Your task to perform on an android device: Look up the best rated book on Goodreads Image 0: 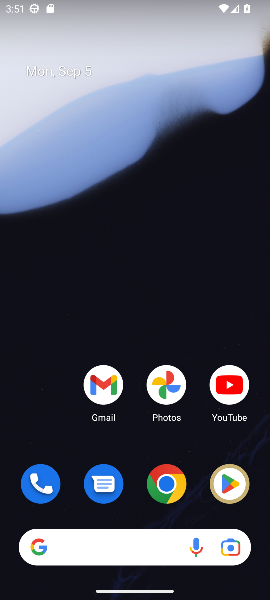
Step 0: click (169, 481)
Your task to perform on an android device: Look up the best rated book on Goodreads Image 1: 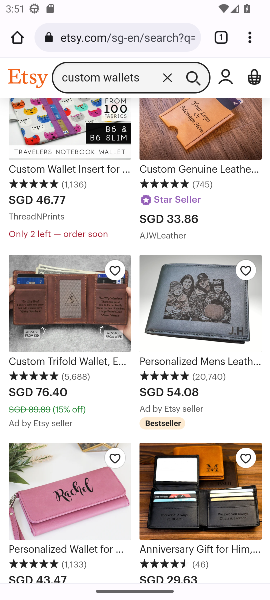
Step 1: click (138, 35)
Your task to perform on an android device: Look up the best rated book on Goodreads Image 2: 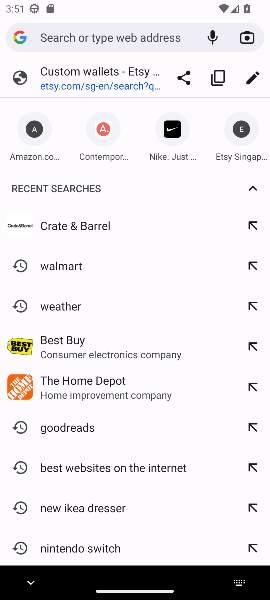
Step 2: type "Goodreads"
Your task to perform on an android device: Look up the best rated book on Goodreads Image 3: 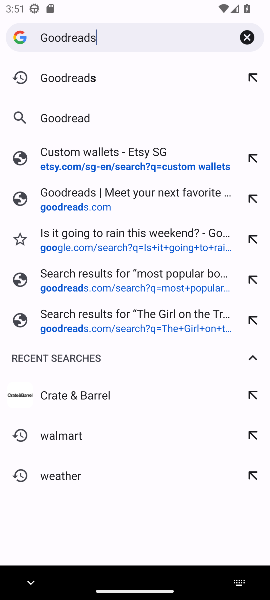
Step 3: press enter
Your task to perform on an android device: Look up the best rated book on Goodreads Image 4: 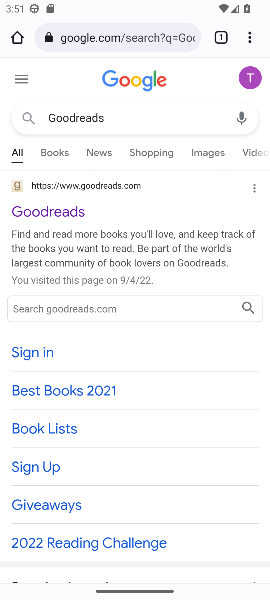
Step 4: click (79, 215)
Your task to perform on an android device: Look up the best rated book on Goodreads Image 5: 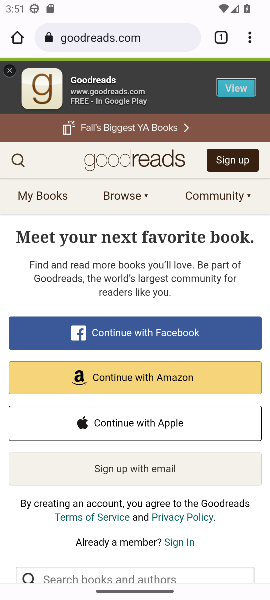
Step 5: click (15, 158)
Your task to perform on an android device: Look up the best rated book on Goodreads Image 6: 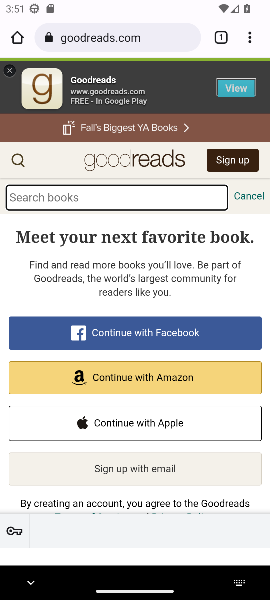
Step 6: click (18, 159)
Your task to perform on an android device: Look up the best rated book on Goodreads Image 7: 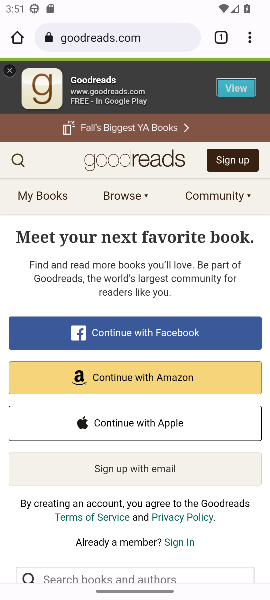
Step 7: click (17, 160)
Your task to perform on an android device: Look up the best rated book on Goodreads Image 8: 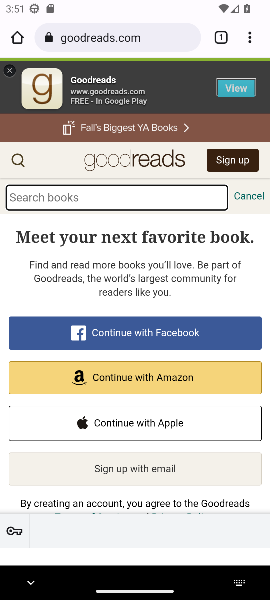
Step 8: type " best rated book"
Your task to perform on an android device: Look up the best rated book on Goodreads Image 9: 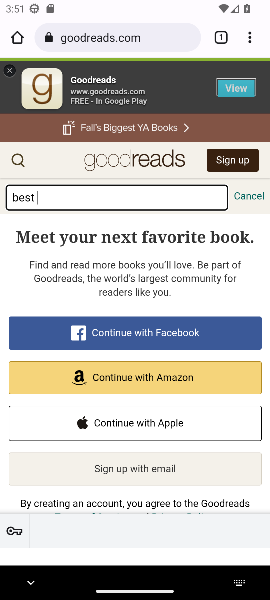
Step 9: press enter
Your task to perform on an android device: Look up the best rated book on Goodreads Image 10: 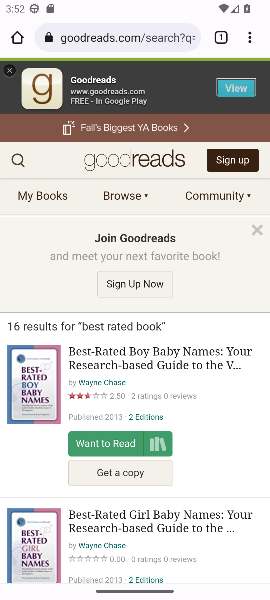
Step 10: task complete